Your task to perform on an android device: Go to accessibility settings Image 0: 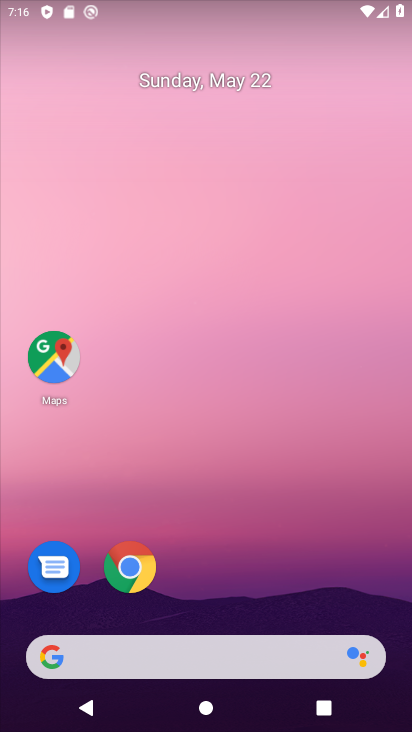
Step 0: drag from (229, 572) to (262, 113)
Your task to perform on an android device: Go to accessibility settings Image 1: 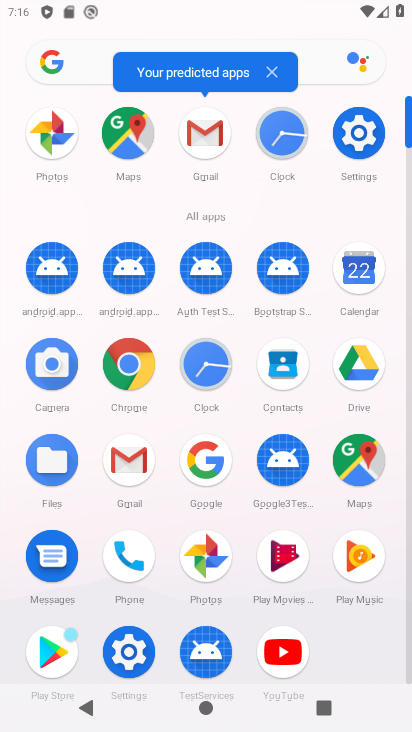
Step 1: click (366, 121)
Your task to perform on an android device: Go to accessibility settings Image 2: 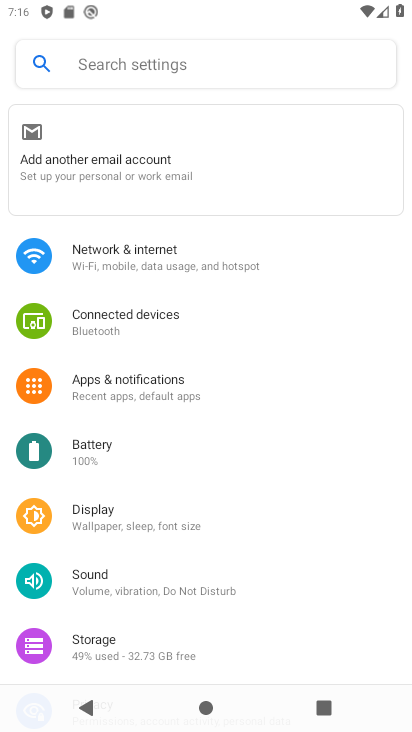
Step 2: drag from (180, 595) to (281, 153)
Your task to perform on an android device: Go to accessibility settings Image 3: 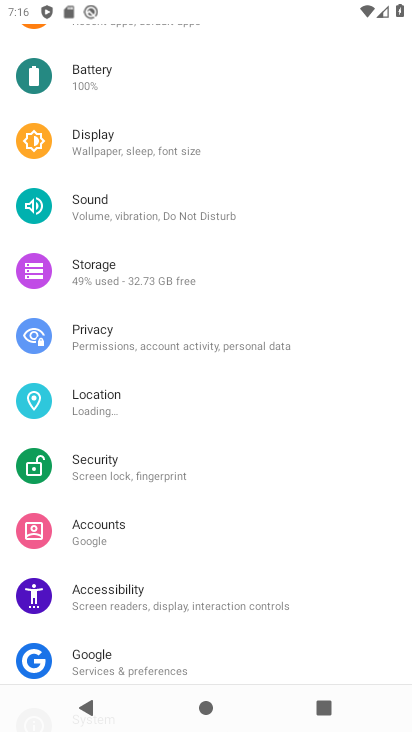
Step 3: click (114, 593)
Your task to perform on an android device: Go to accessibility settings Image 4: 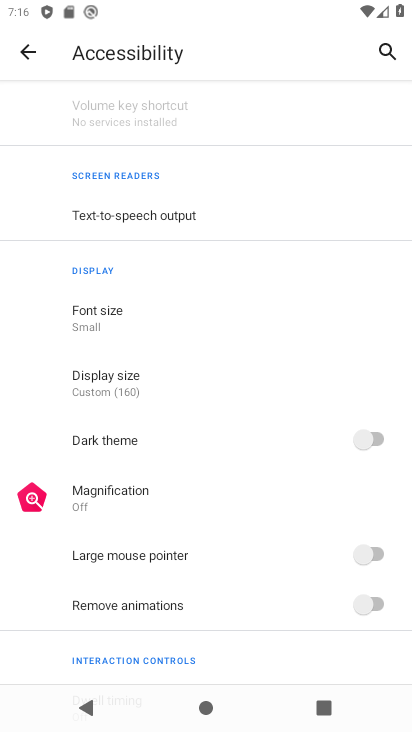
Step 4: task complete